Your task to perform on an android device: Search for Italian restaurants on Maps Image 0: 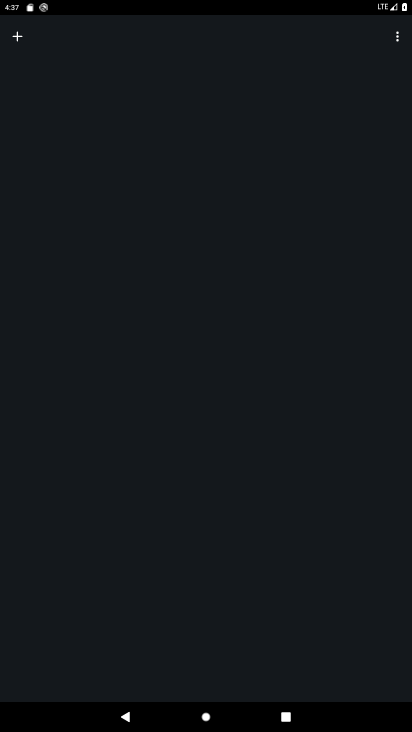
Step 0: press home button
Your task to perform on an android device: Search for Italian restaurants on Maps Image 1: 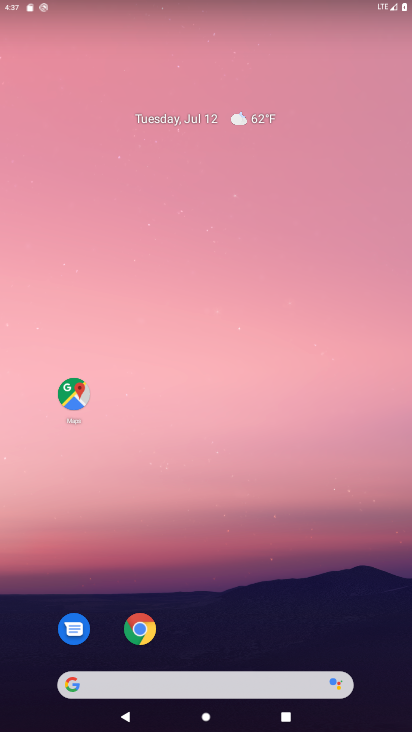
Step 1: drag from (246, 643) to (210, 19)
Your task to perform on an android device: Search for Italian restaurants on Maps Image 2: 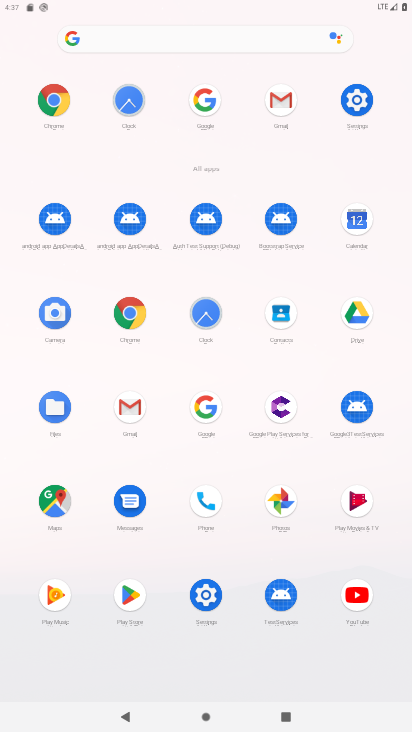
Step 2: click (74, 516)
Your task to perform on an android device: Search for Italian restaurants on Maps Image 3: 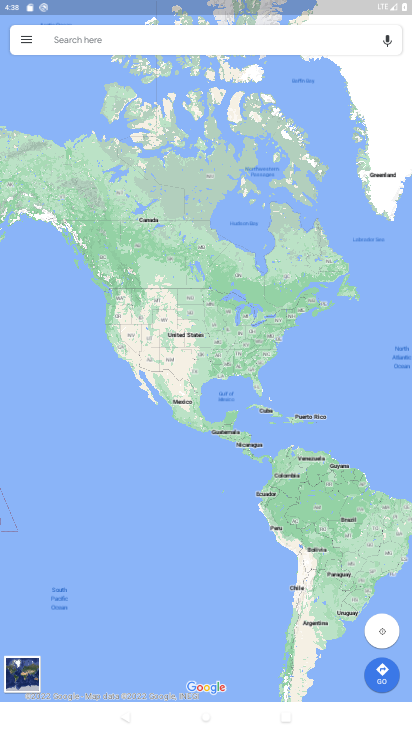
Step 3: click (175, 45)
Your task to perform on an android device: Search for Italian restaurants on Maps Image 4: 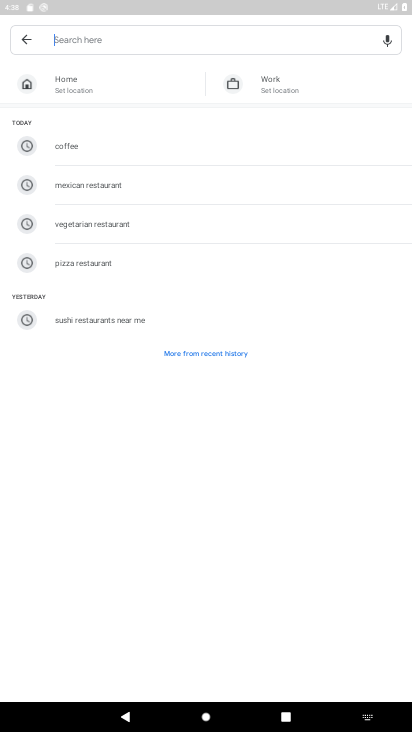
Step 4: type "Italian restaurants"
Your task to perform on an android device: Search for Italian restaurants on Maps Image 5: 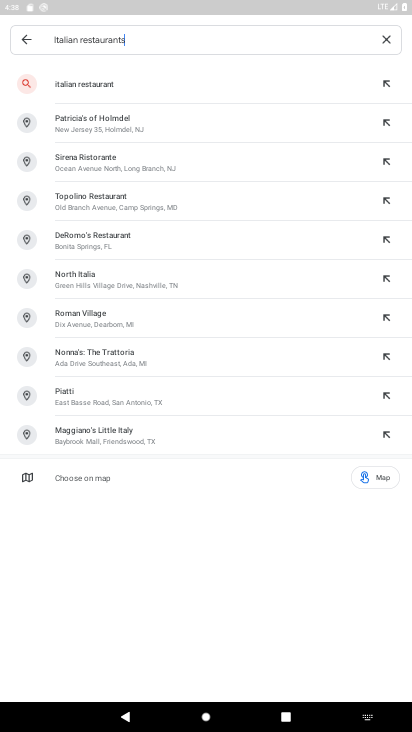
Step 5: click (64, 85)
Your task to perform on an android device: Search for Italian restaurants on Maps Image 6: 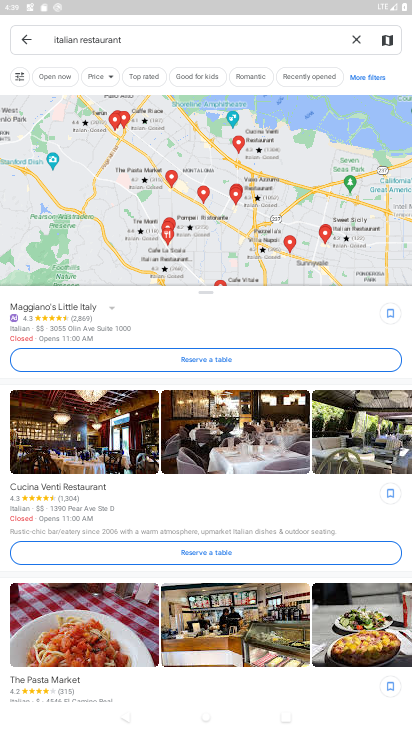
Step 6: task complete